Your task to perform on an android device: Open battery settings Image 0: 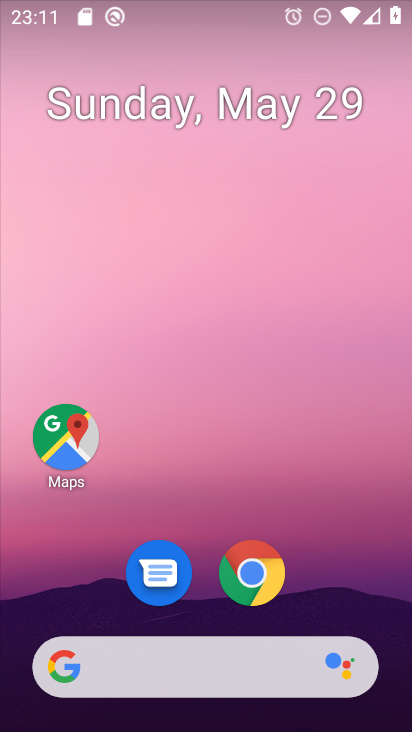
Step 0: drag from (242, 477) to (291, 14)
Your task to perform on an android device: Open battery settings Image 1: 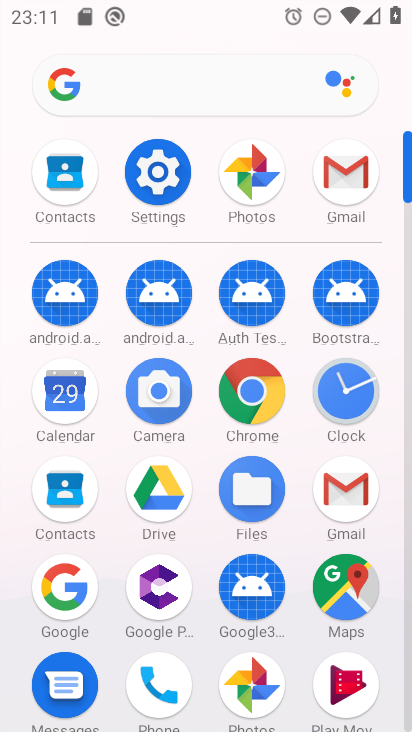
Step 1: click (157, 172)
Your task to perform on an android device: Open battery settings Image 2: 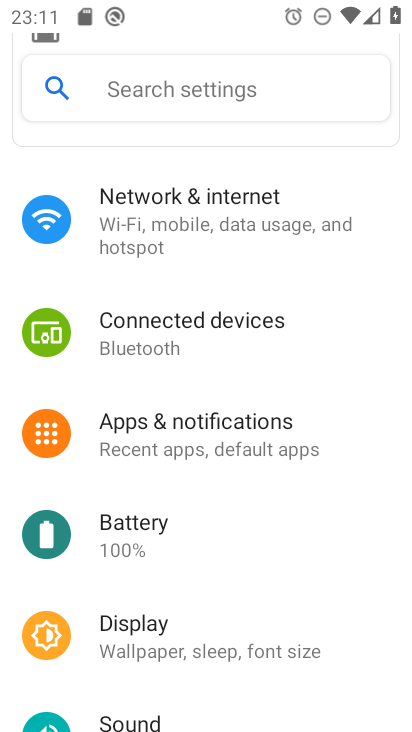
Step 2: click (190, 541)
Your task to perform on an android device: Open battery settings Image 3: 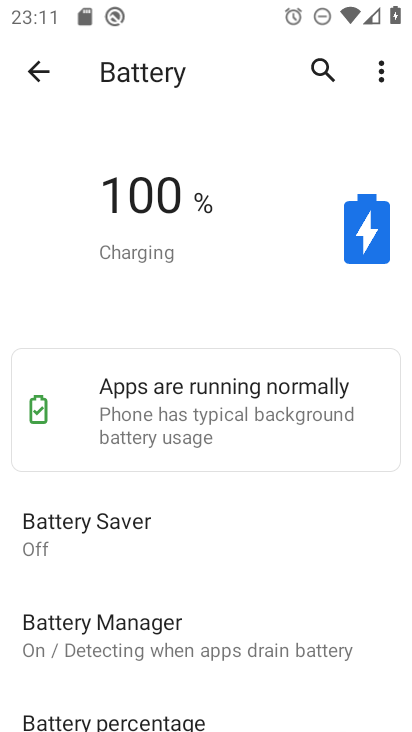
Step 3: task complete